Your task to perform on an android device: Go to Yahoo.com Image 0: 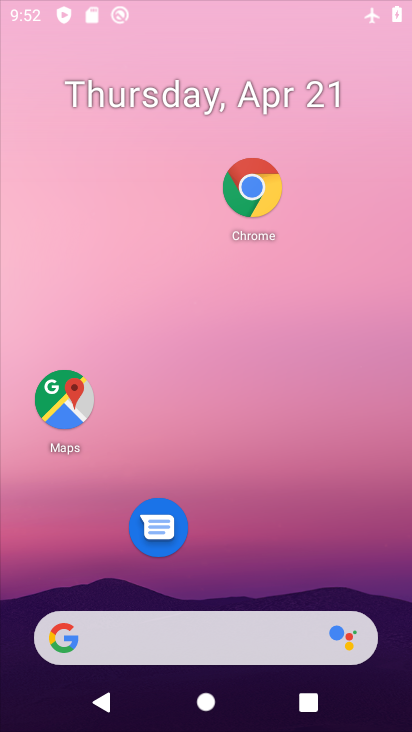
Step 0: click (323, 4)
Your task to perform on an android device: Go to Yahoo.com Image 1: 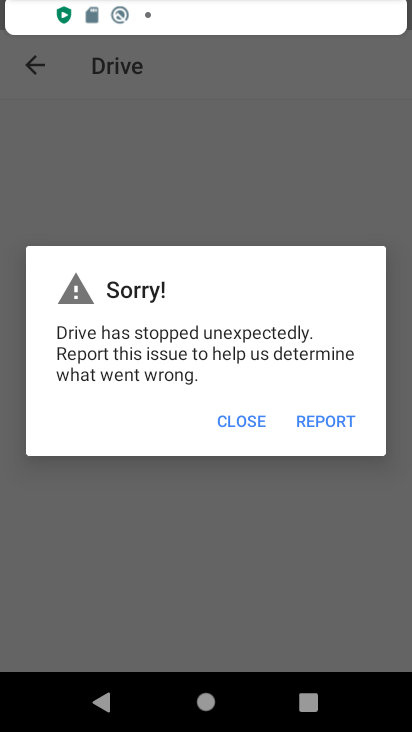
Step 1: press home button
Your task to perform on an android device: Go to Yahoo.com Image 2: 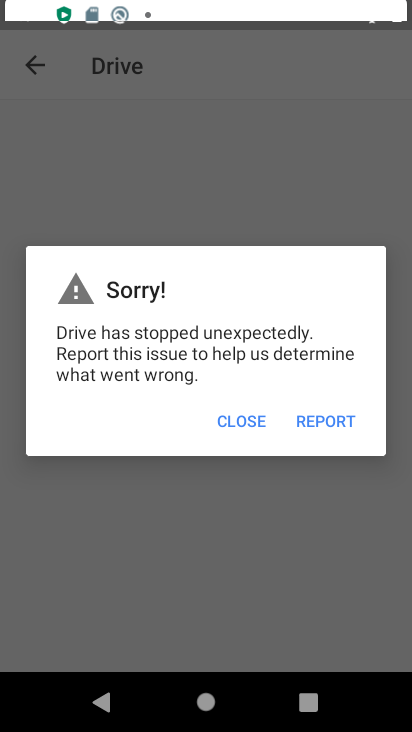
Step 2: click (343, 441)
Your task to perform on an android device: Go to Yahoo.com Image 3: 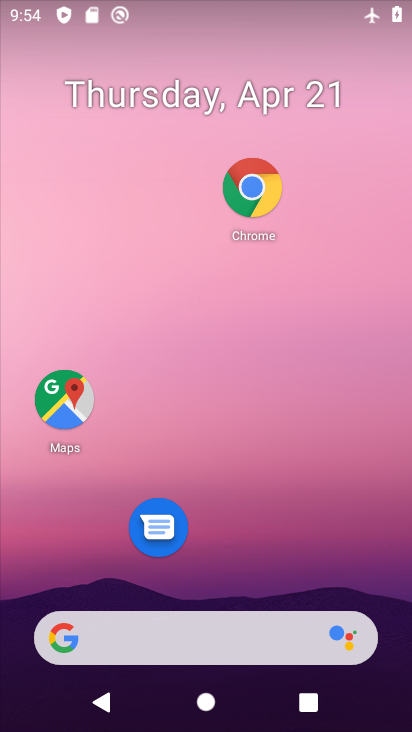
Step 3: drag from (242, 479) to (258, 147)
Your task to perform on an android device: Go to Yahoo.com Image 4: 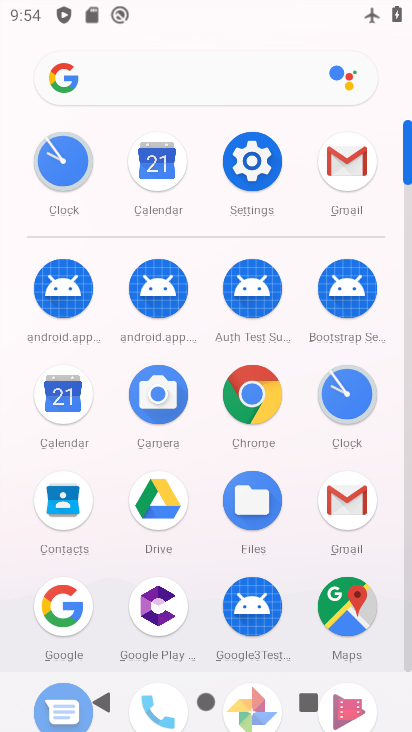
Step 4: click (257, 394)
Your task to perform on an android device: Go to Yahoo.com Image 5: 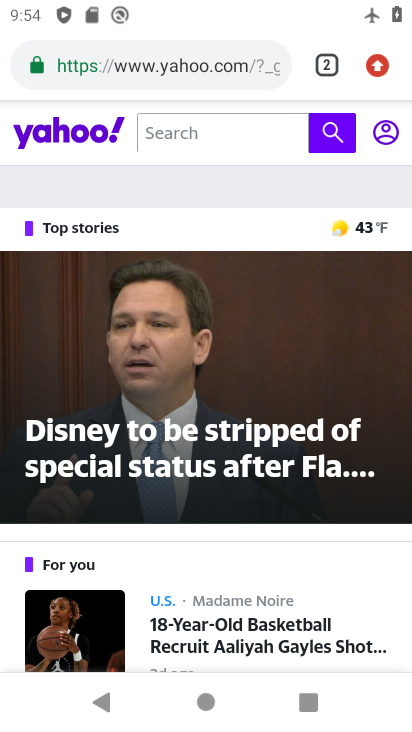
Step 5: task complete